Your task to perform on an android device: change notification settings in the gmail app Image 0: 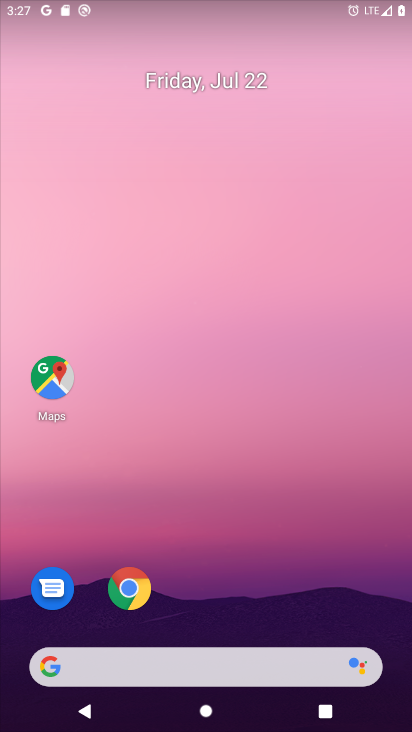
Step 0: drag from (313, 583) to (314, 138)
Your task to perform on an android device: change notification settings in the gmail app Image 1: 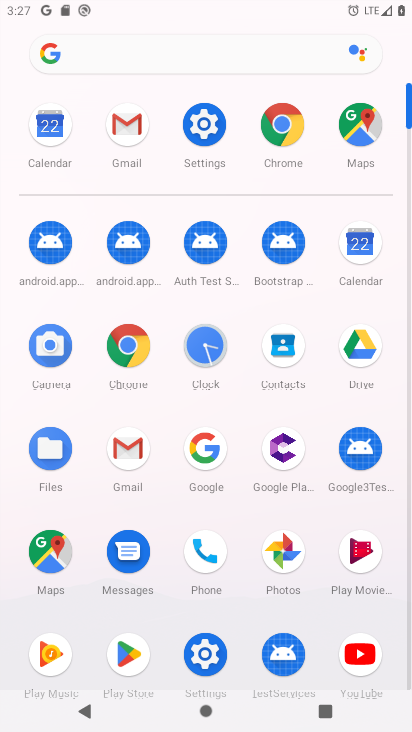
Step 1: click (148, 449)
Your task to perform on an android device: change notification settings in the gmail app Image 2: 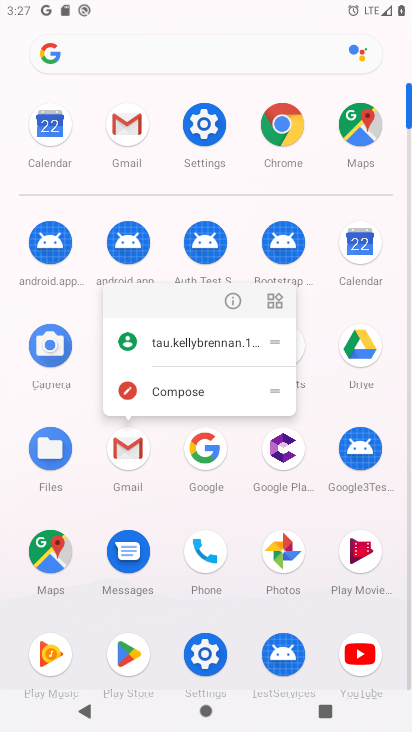
Step 2: click (228, 293)
Your task to perform on an android device: change notification settings in the gmail app Image 3: 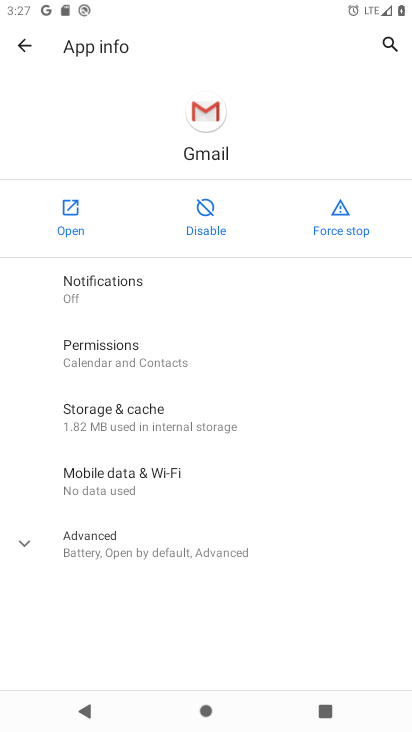
Step 3: click (115, 283)
Your task to perform on an android device: change notification settings in the gmail app Image 4: 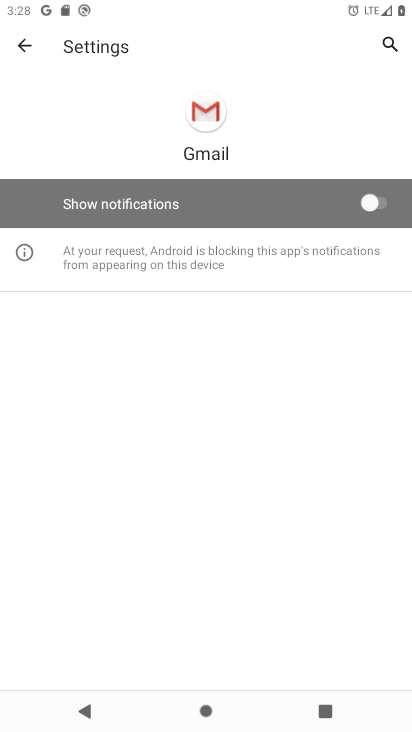
Step 4: click (319, 201)
Your task to perform on an android device: change notification settings in the gmail app Image 5: 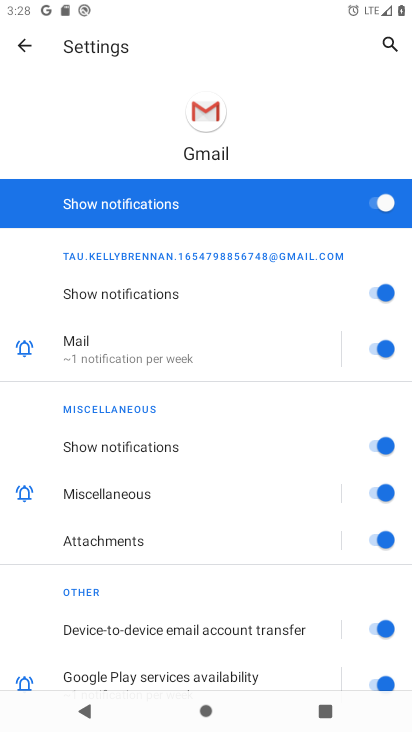
Step 5: task complete